Your task to perform on an android device: Go to Maps Image 0: 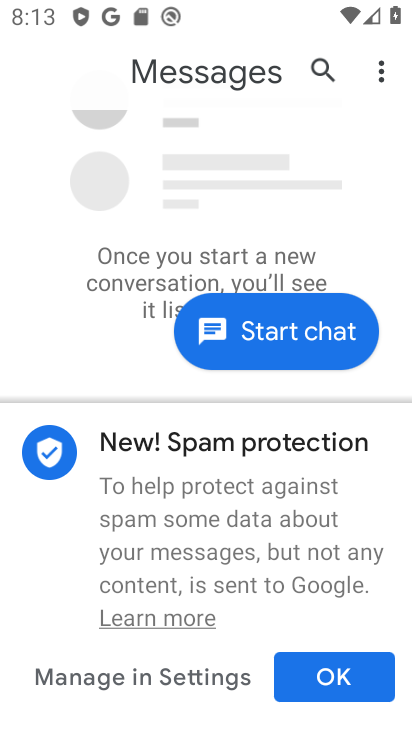
Step 0: press home button
Your task to perform on an android device: Go to Maps Image 1: 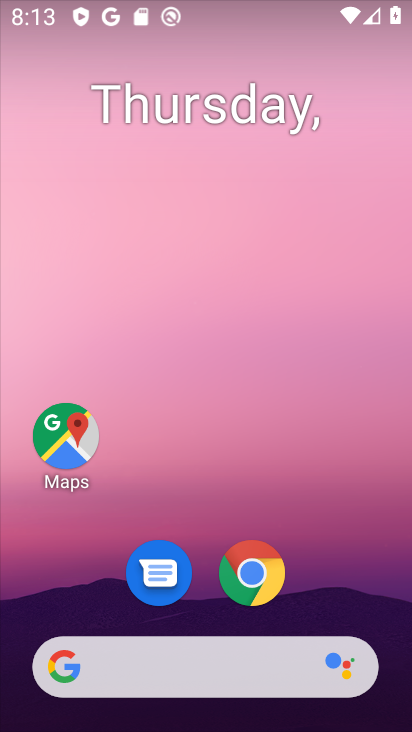
Step 1: drag from (392, 587) to (352, 97)
Your task to perform on an android device: Go to Maps Image 2: 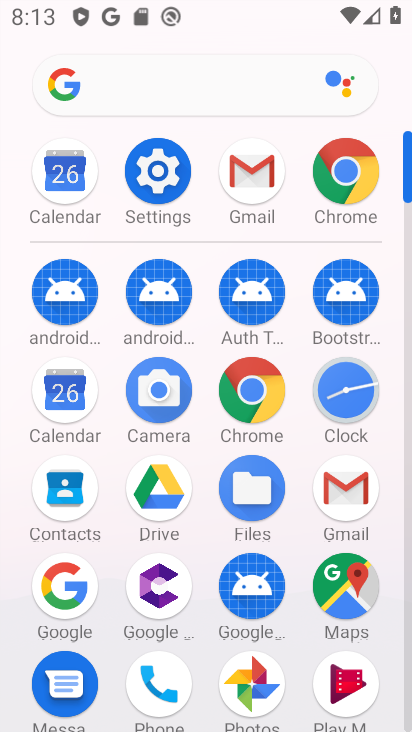
Step 2: click (336, 582)
Your task to perform on an android device: Go to Maps Image 3: 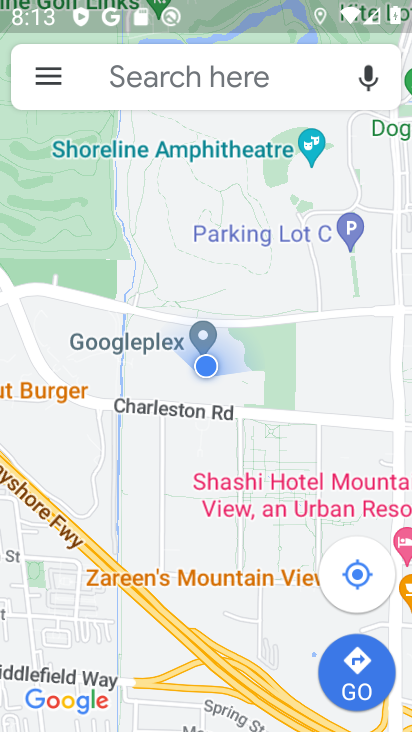
Step 3: task complete